Your task to perform on an android device: Open the web browser Image 0: 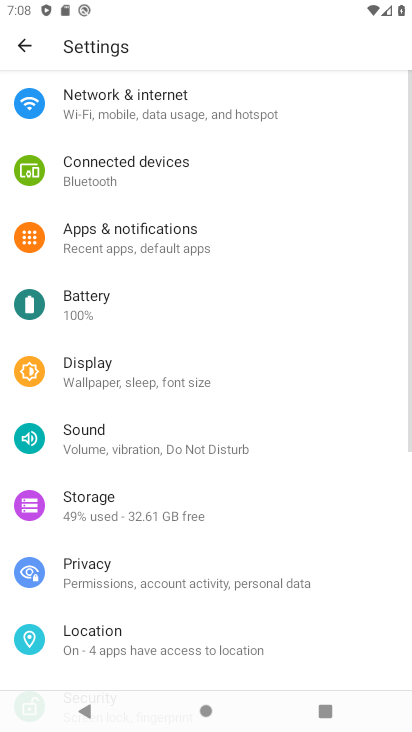
Step 0: press home button
Your task to perform on an android device: Open the web browser Image 1: 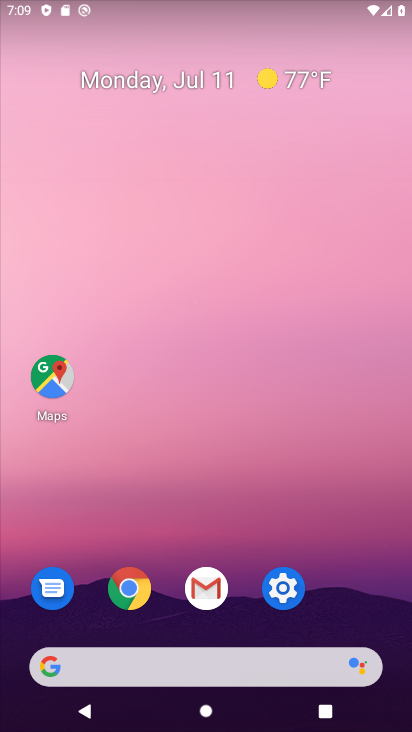
Step 1: drag from (233, 682) to (113, 323)
Your task to perform on an android device: Open the web browser Image 2: 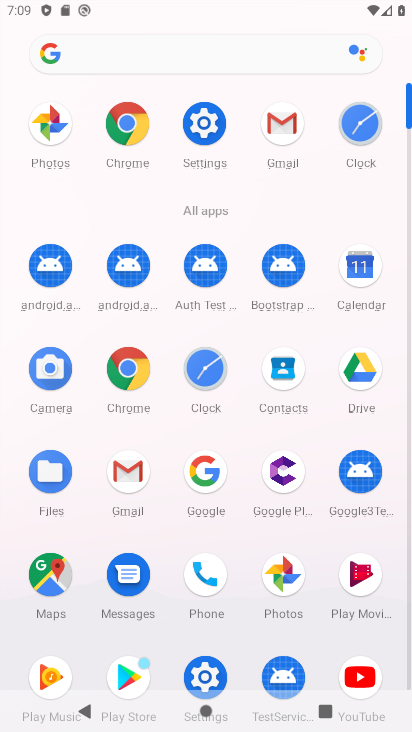
Step 2: click (142, 130)
Your task to perform on an android device: Open the web browser Image 3: 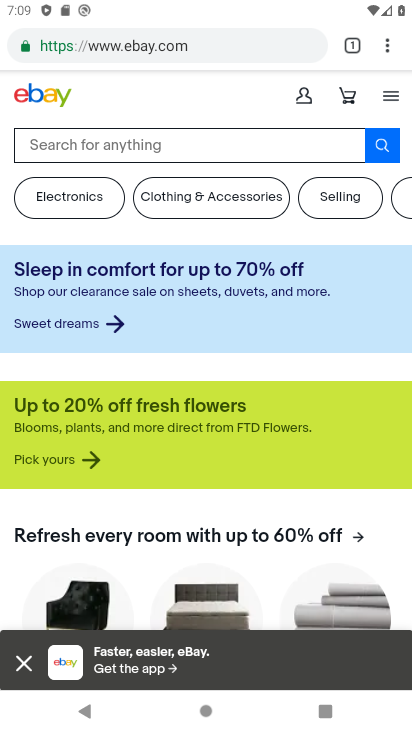
Step 3: click (231, 45)
Your task to perform on an android device: Open the web browser Image 4: 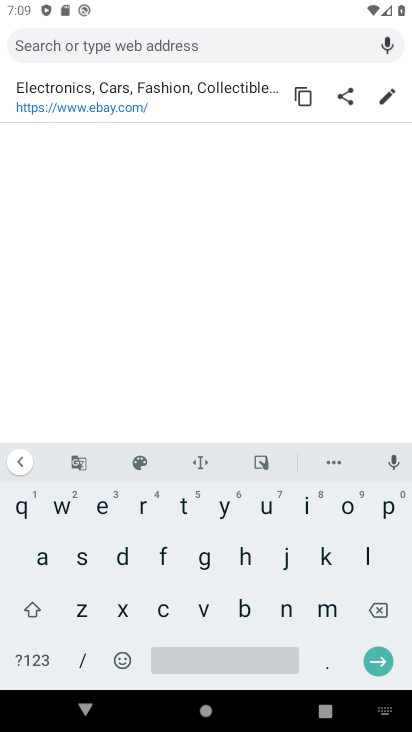
Step 4: task complete